Your task to perform on an android device: Open accessibility settings Image 0: 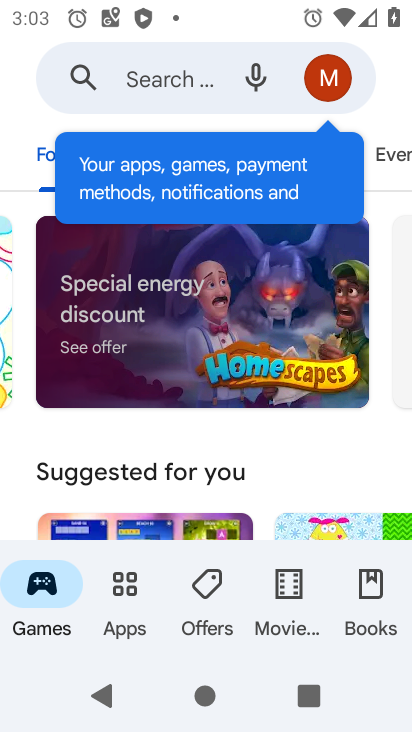
Step 0: press home button
Your task to perform on an android device: Open accessibility settings Image 1: 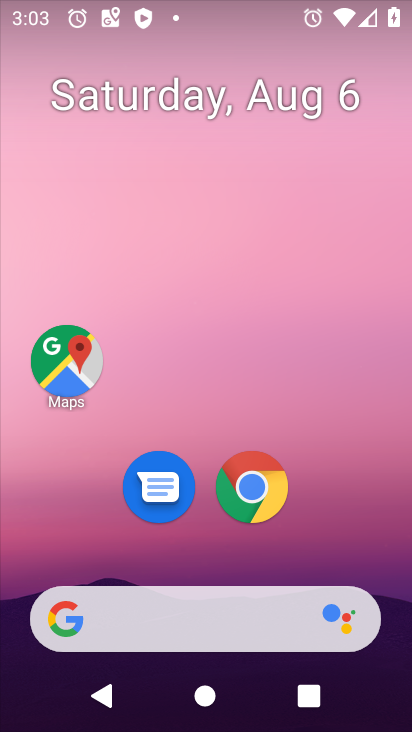
Step 1: drag from (243, 604) to (230, 106)
Your task to perform on an android device: Open accessibility settings Image 2: 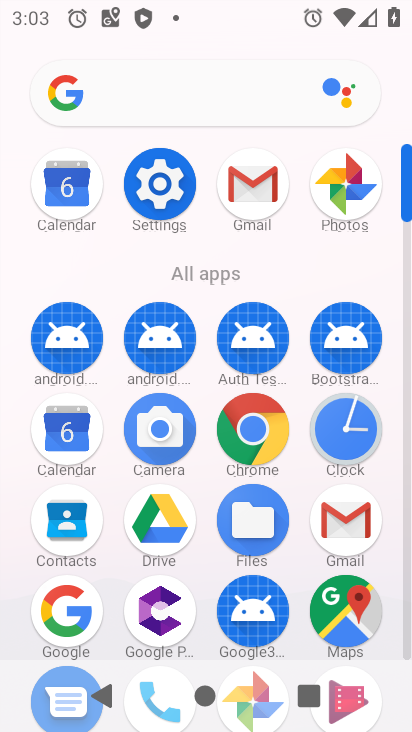
Step 2: click (180, 190)
Your task to perform on an android device: Open accessibility settings Image 3: 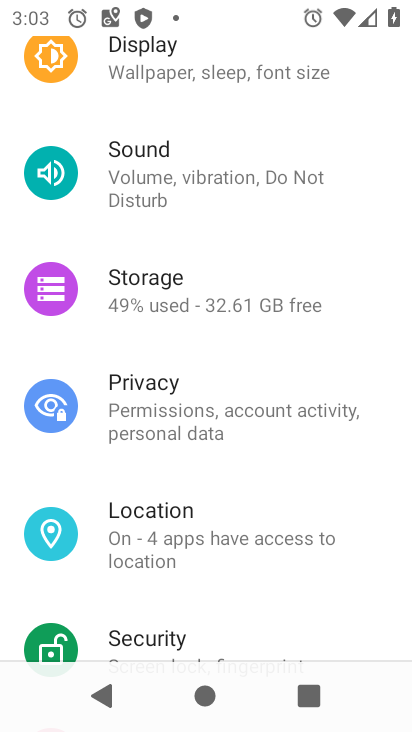
Step 3: drag from (199, 493) to (238, 8)
Your task to perform on an android device: Open accessibility settings Image 4: 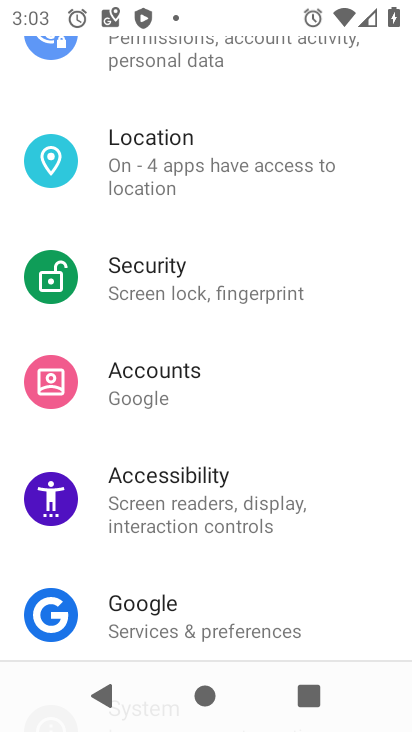
Step 4: click (193, 495)
Your task to perform on an android device: Open accessibility settings Image 5: 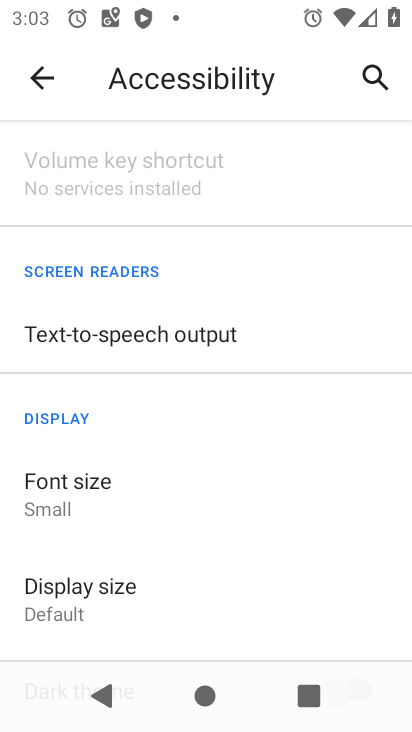
Step 5: task complete